Your task to perform on an android device: Show me productivity apps on the Play Store Image 0: 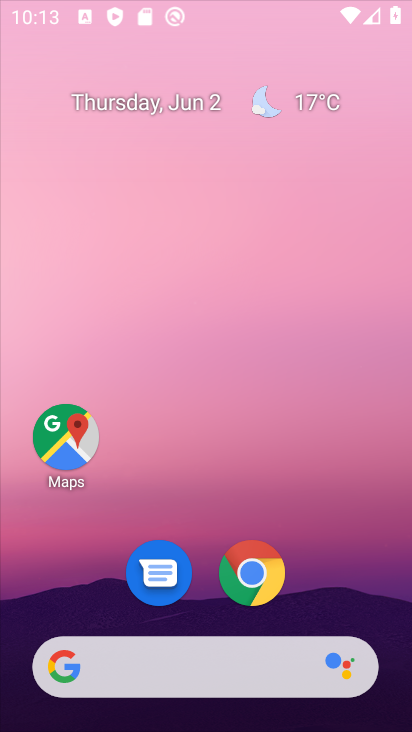
Step 0: drag from (343, 436) to (346, 3)
Your task to perform on an android device: Show me productivity apps on the Play Store Image 1: 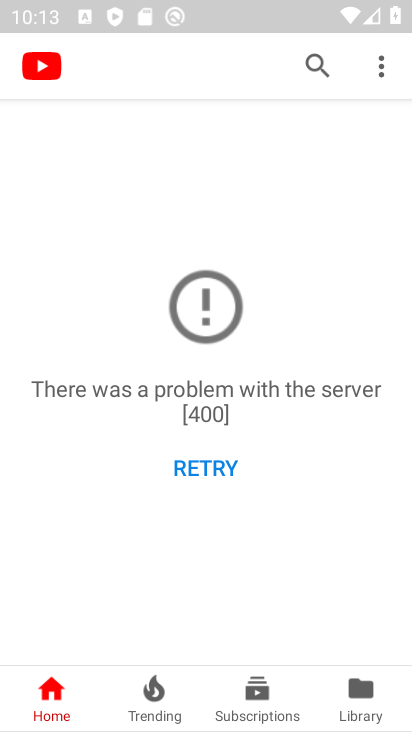
Step 1: press home button
Your task to perform on an android device: Show me productivity apps on the Play Store Image 2: 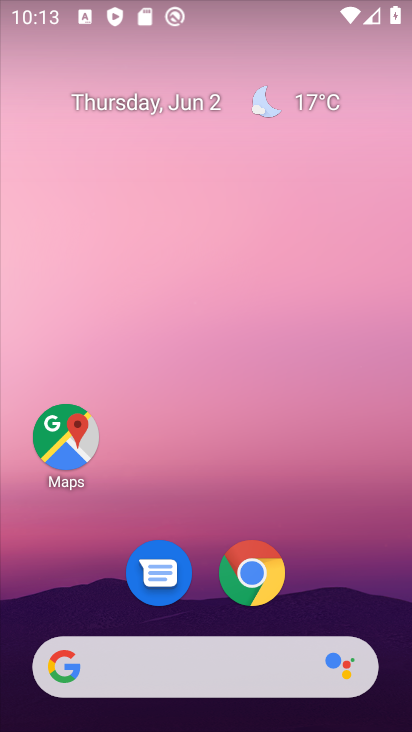
Step 2: drag from (354, 544) to (381, 0)
Your task to perform on an android device: Show me productivity apps on the Play Store Image 3: 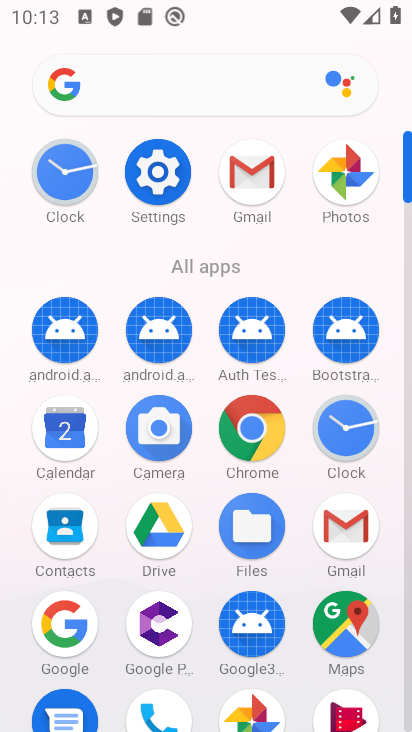
Step 3: drag from (386, 603) to (324, 179)
Your task to perform on an android device: Show me productivity apps on the Play Store Image 4: 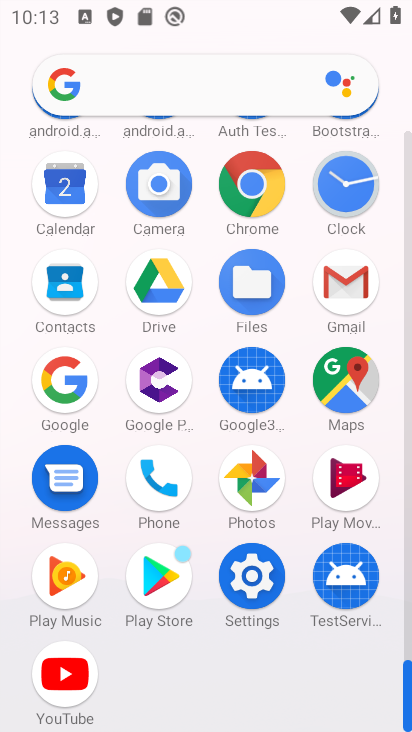
Step 4: click (166, 569)
Your task to perform on an android device: Show me productivity apps on the Play Store Image 5: 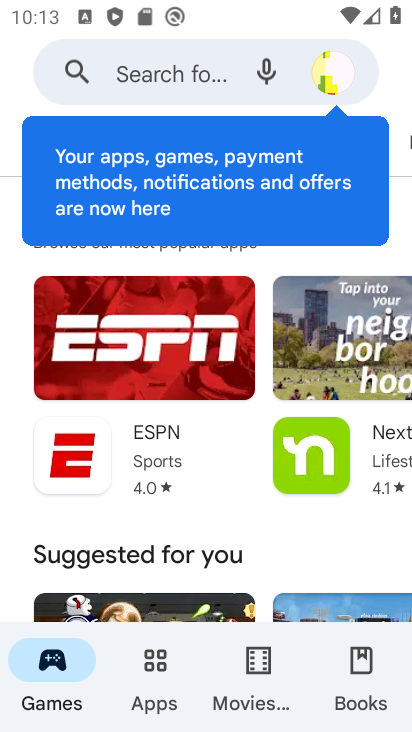
Step 5: click (202, 61)
Your task to perform on an android device: Show me productivity apps on the Play Store Image 6: 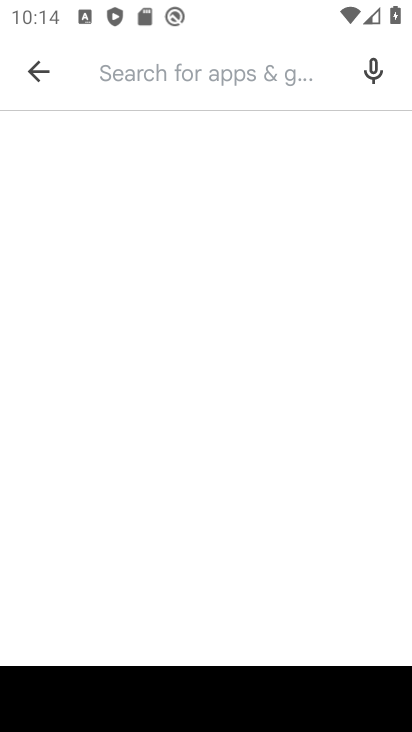
Step 6: type "productivity apss"
Your task to perform on an android device: Show me productivity apps on the Play Store Image 7: 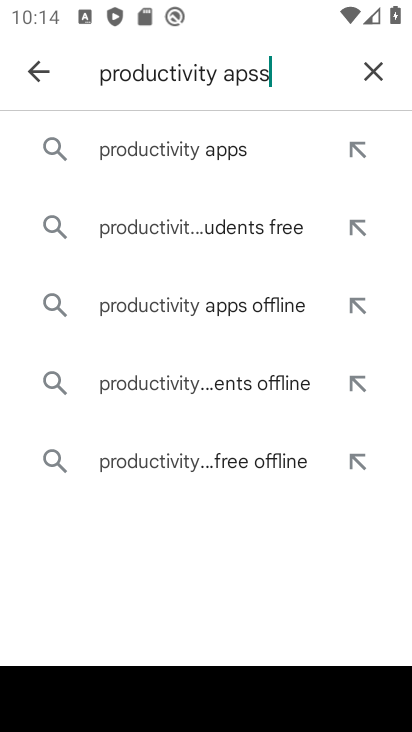
Step 7: click (201, 161)
Your task to perform on an android device: Show me productivity apps on the Play Store Image 8: 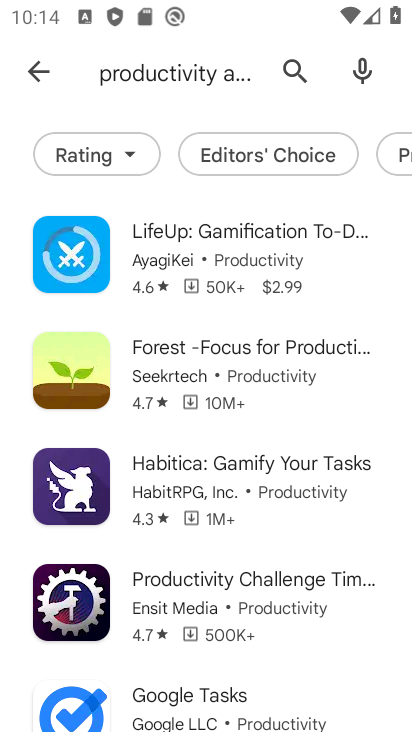
Step 8: task complete